Your task to perform on an android device: Open the calendar app, open the side menu, and click the "Day" option Image 0: 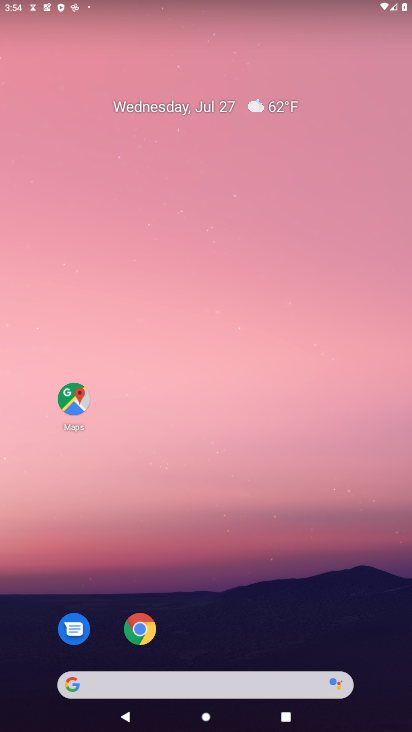
Step 0: drag from (178, 689) to (208, 93)
Your task to perform on an android device: Open the calendar app, open the side menu, and click the "Day" option Image 1: 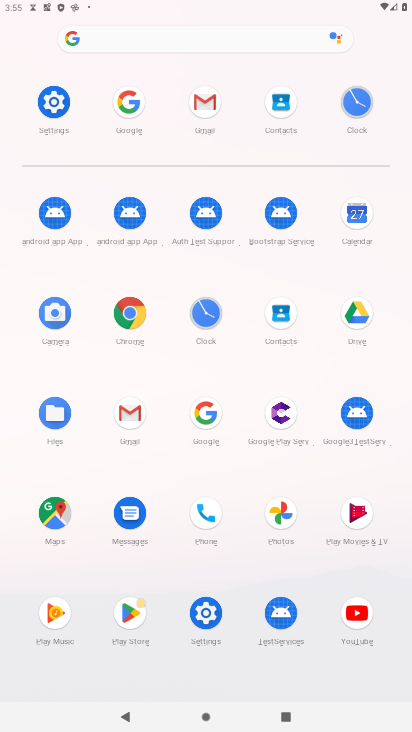
Step 1: click (359, 211)
Your task to perform on an android device: Open the calendar app, open the side menu, and click the "Day" option Image 2: 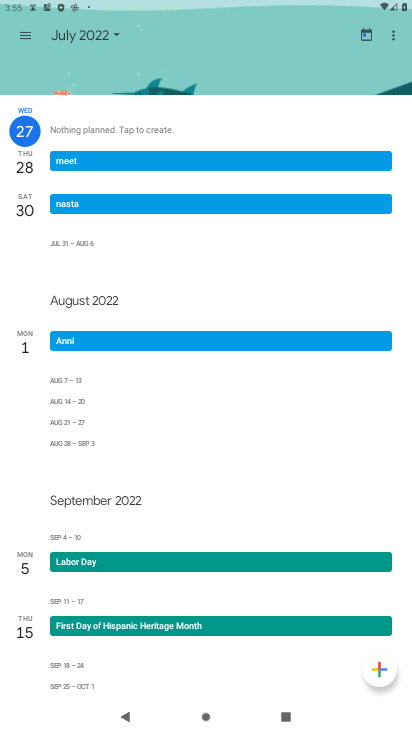
Step 2: click (25, 35)
Your task to perform on an android device: Open the calendar app, open the side menu, and click the "Day" option Image 3: 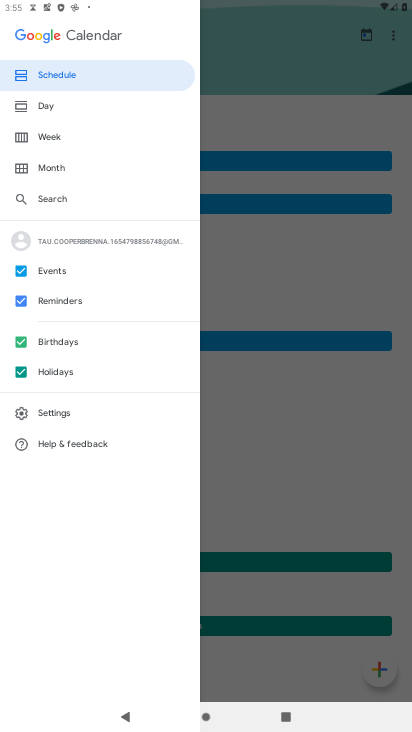
Step 3: click (41, 108)
Your task to perform on an android device: Open the calendar app, open the side menu, and click the "Day" option Image 4: 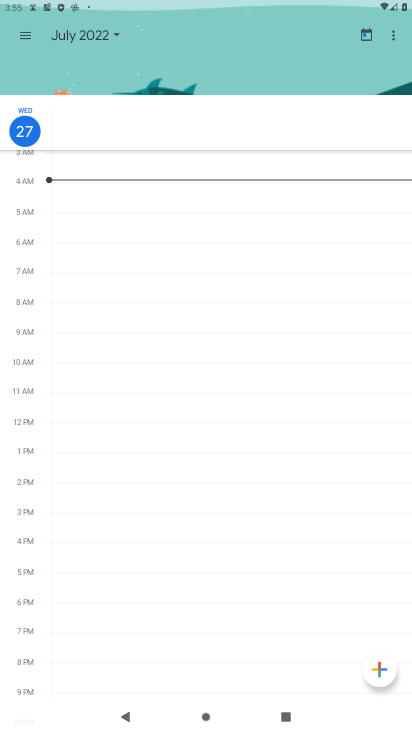
Step 4: task complete